Your task to perform on an android device: turn notification dots off Image 0: 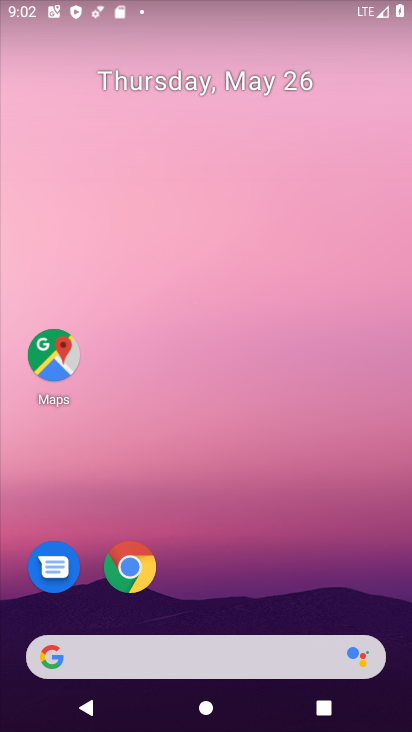
Step 0: drag from (242, 698) to (260, 9)
Your task to perform on an android device: turn notification dots off Image 1: 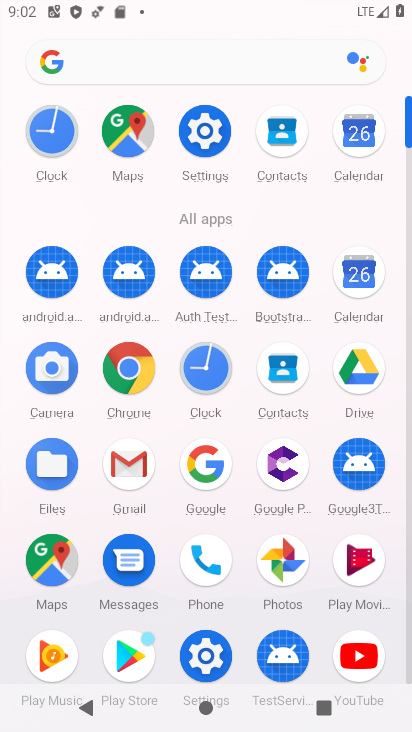
Step 1: click (215, 141)
Your task to perform on an android device: turn notification dots off Image 2: 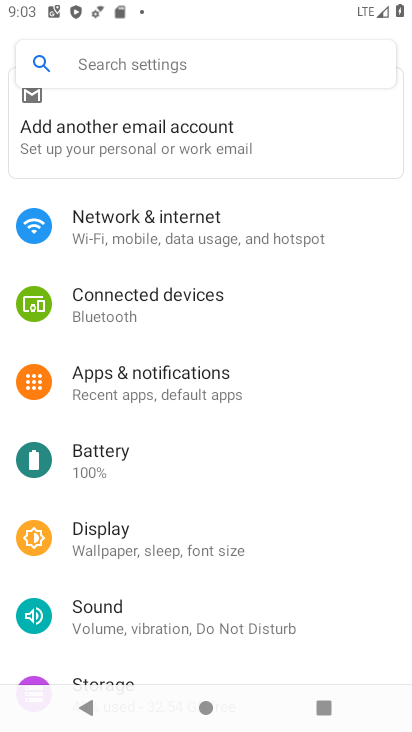
Step 2: click (273, 393)
Your task to perform on an android device: turn notification dots off Image 3: 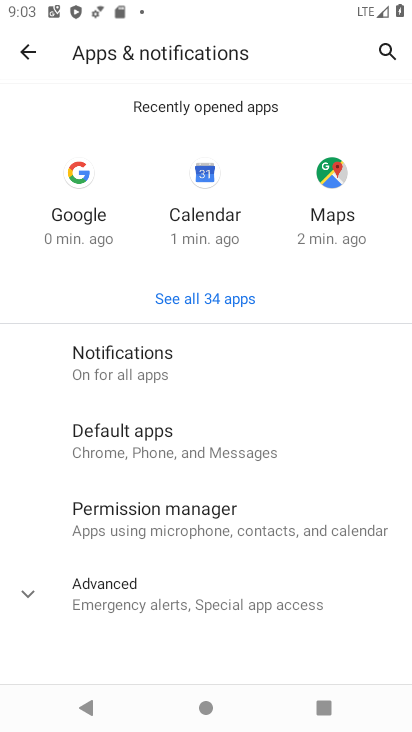
Step 3: click (168, 345)
Your task to perform on an android device: turn notification dots off Image 4: 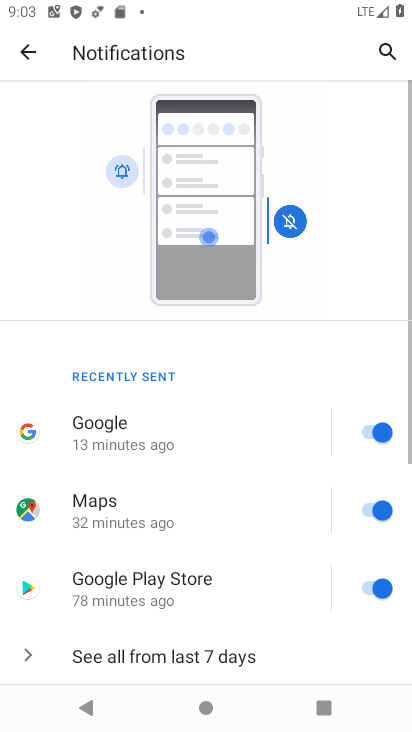
Step 4: drag from (271, 598) to (209, 50)
Your task to perform on an android device: turn notification dots off Image 5: 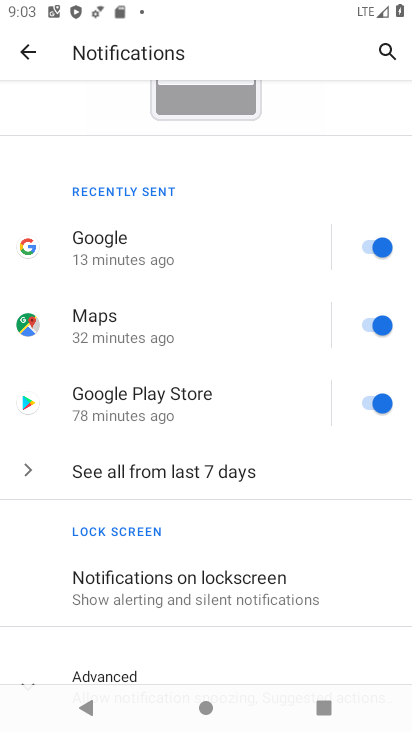
Step 5: drag from (219, 665) to (122, 105)
Your task to perform on an android device: turn notification dots off Image 6: 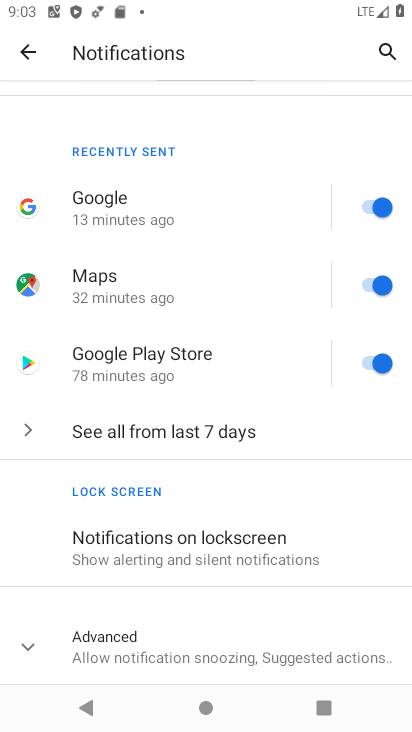
Step 6: click (277, 652)
Your task to perform on an android device: turn notification dots off Image 7: 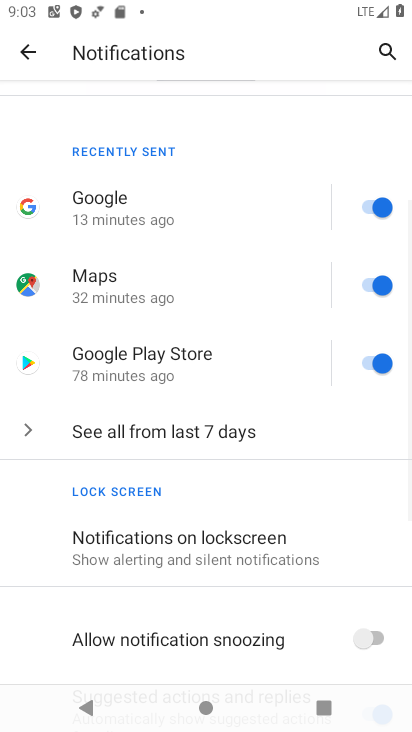
Step 7: drag from (270, 655) to (236, 260)
Your task to perform on an android device: turn notification dots off Image 8: 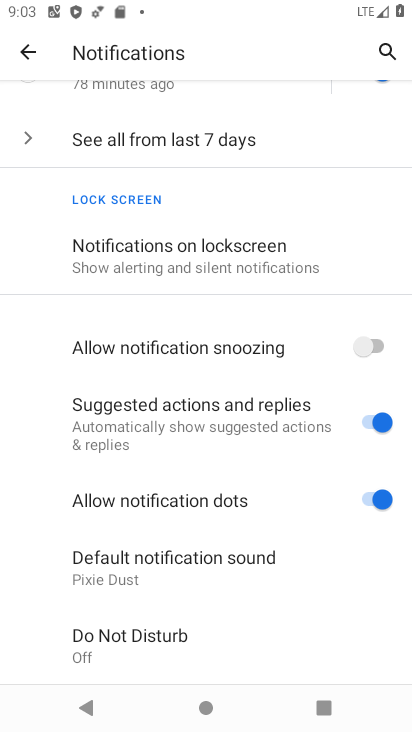
Step 8: click (378, 492)
Your task to perform on an android device: turn notification dots off Image 9: 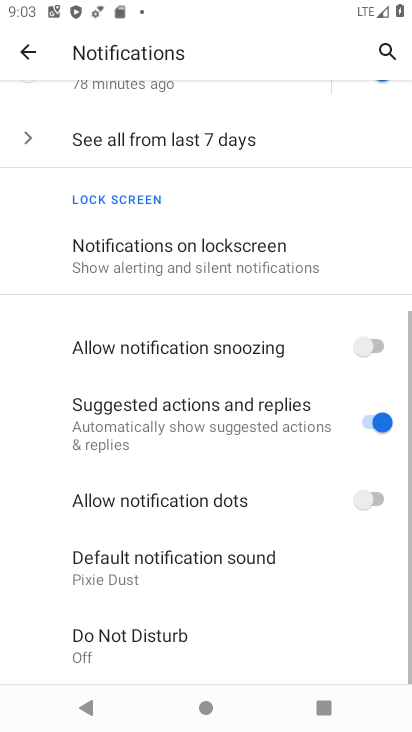
Step 9: task complete